Your task to perform on an android device: Go to Google Image 0: 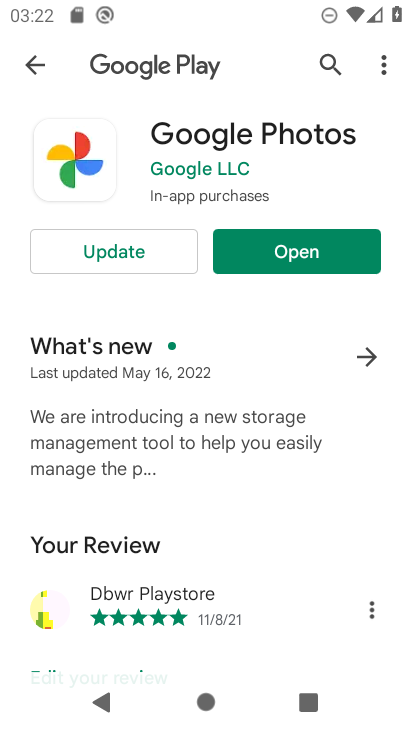
Step 0: press home button
Your task to perform on an android device: Go to Google Image 1: 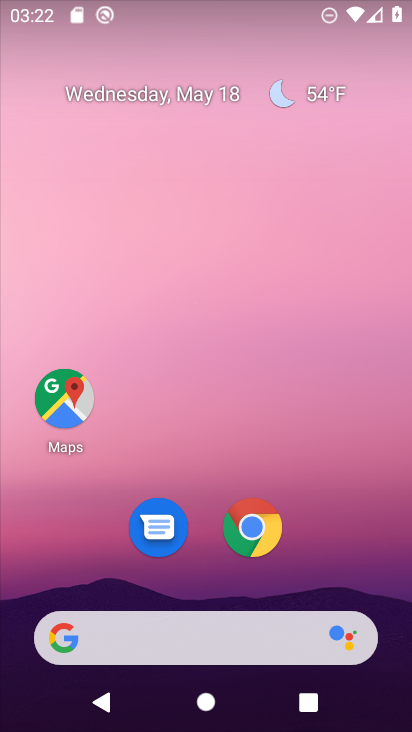
Step 1: click (209, 613)
Your task to perform on an android device: Go to Google Image 2: 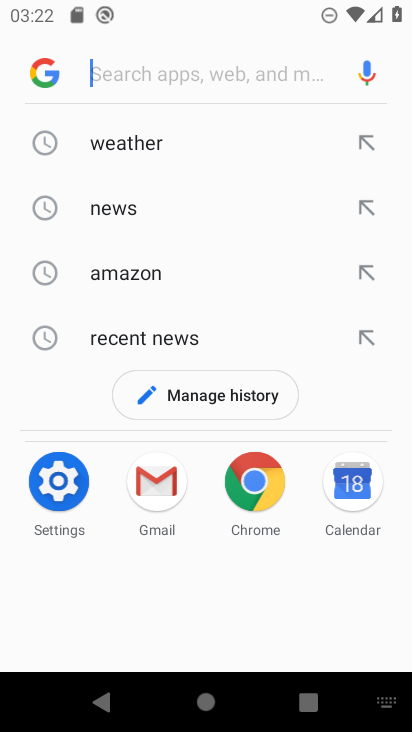
Step 2: task complete